Your task to perform on an android device: open app "Clock" Image 0: 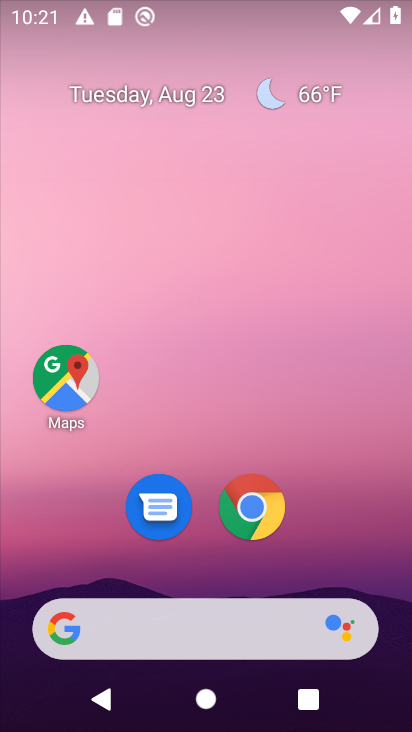
Step 0: drag from (398, 649) to (362, 138)
Your task to perform on an android device: open app "Clock" Image 1: 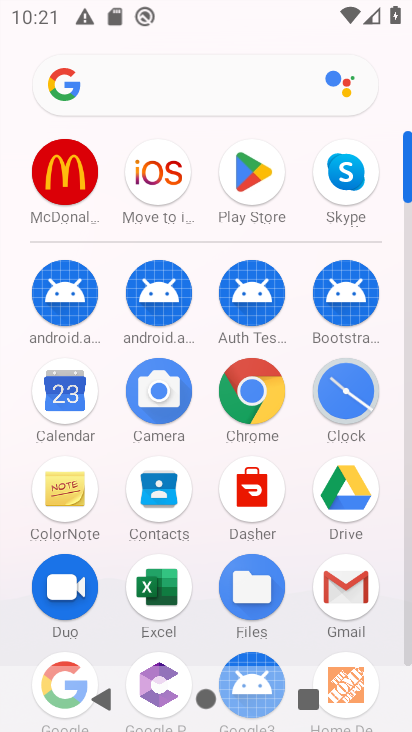
Step 1: click (408, 646)
Your task to perform on an android device: open app "Clock" Image 2: 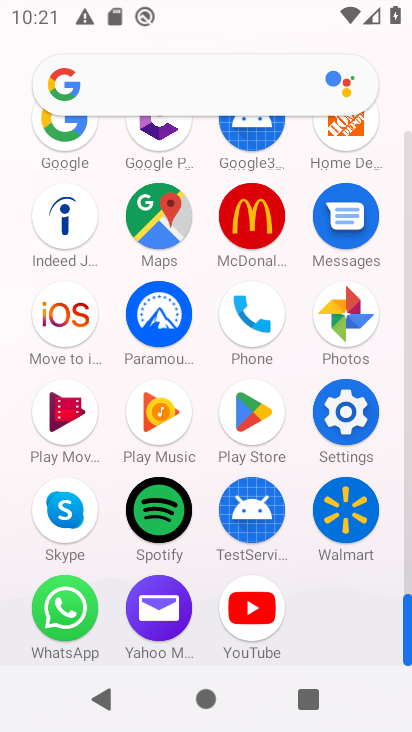
Step 2: click (253, 413)
Your task to perform on an android device: open app "Clock" Image 3: 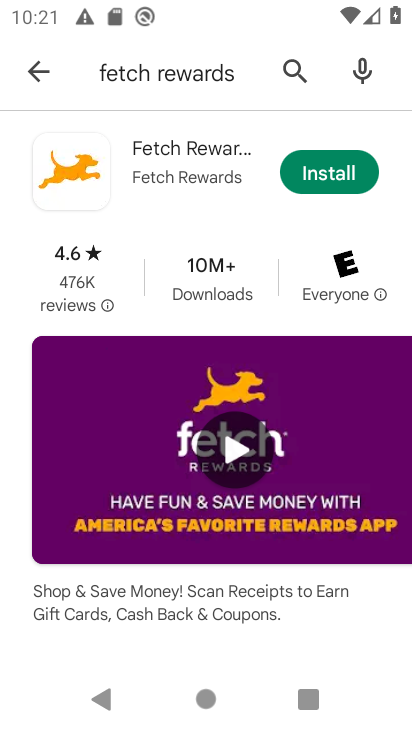
Step 3: click (290, 57)
Your task to perform on an android device: open app "Clock" Image 4: 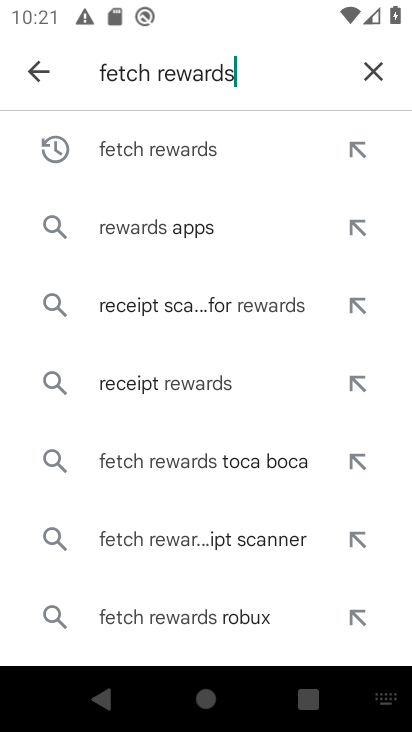
Step 4: click (371, 72)
Your task to perform on an android device: open app "Clock" Image 5: 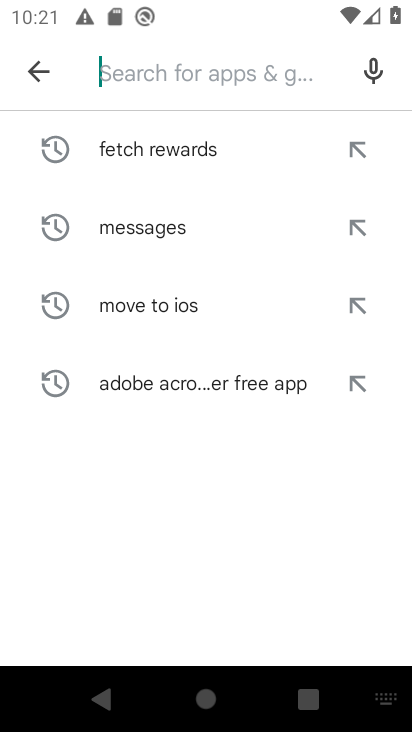
Step 5: type "Clock"
Your task to perform on an android device: open app "Clock" Image 6: 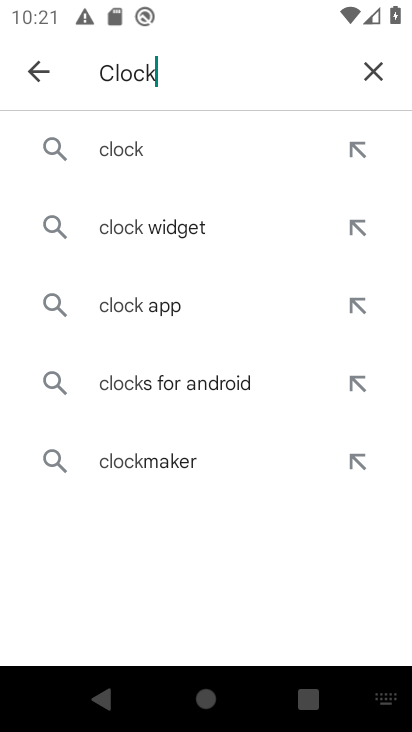
Step 6: click (118, 146)
Your task to perform on an android device: open app "Clock" Image 7: 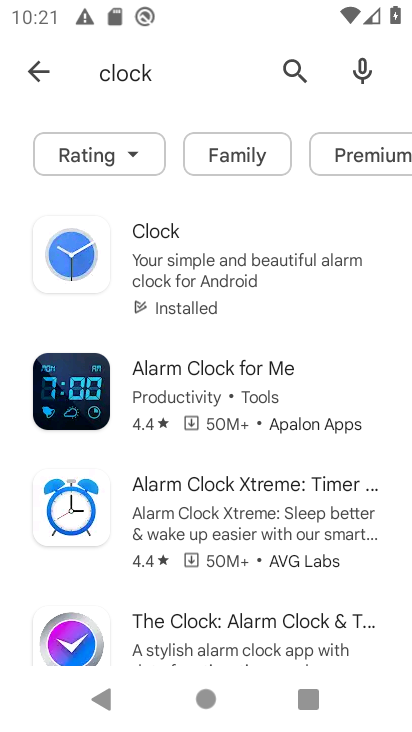
Step 7: click (161, 258)
Your task to perform on an android device: open app "Clock" Image 8: 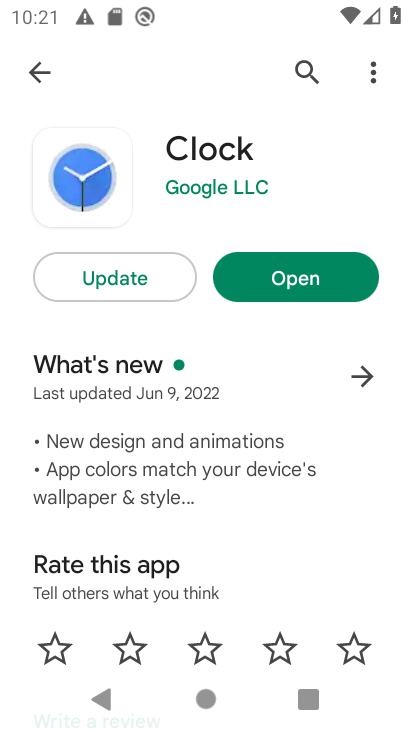
Step 8: click (294, 281)
Your task to perform on an android device: open app "Clock" Image 9: 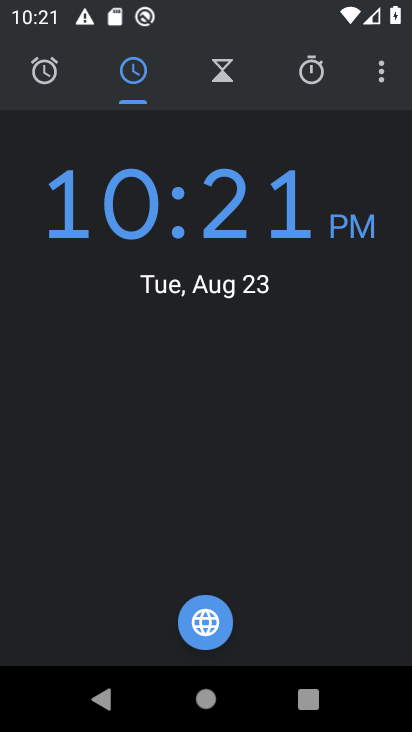
Step 9: task complete